Your task to perform on an android device: Go to internet settings Image 0: 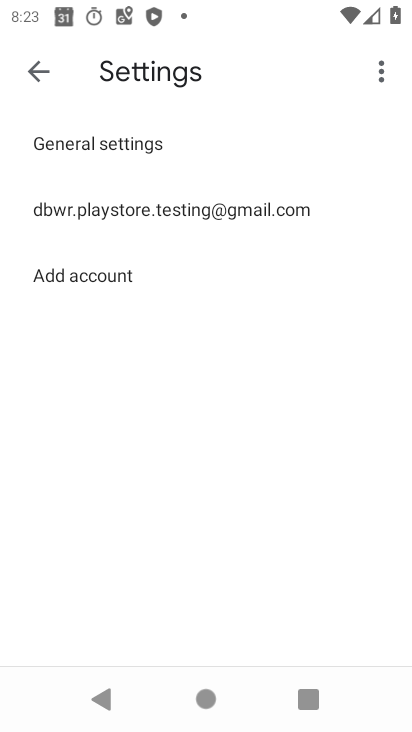
Step 0: press home button
Your task to perform on an android device: Go to internet settings Image 1: 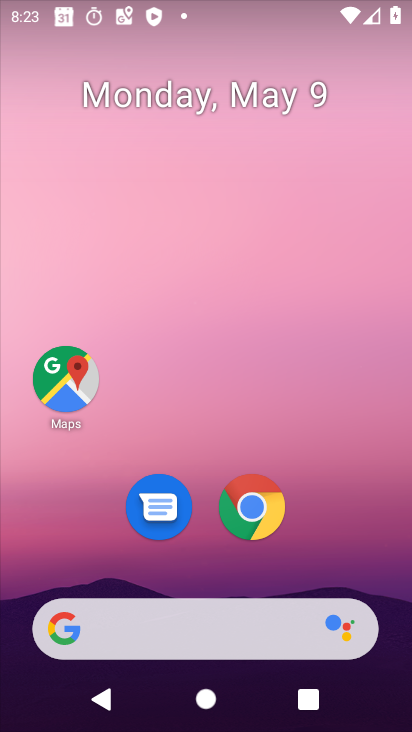
Step 1: drag from (247, 677) to (217, 111)
Your task to perform on an android device: Go to internet settings Image 2: 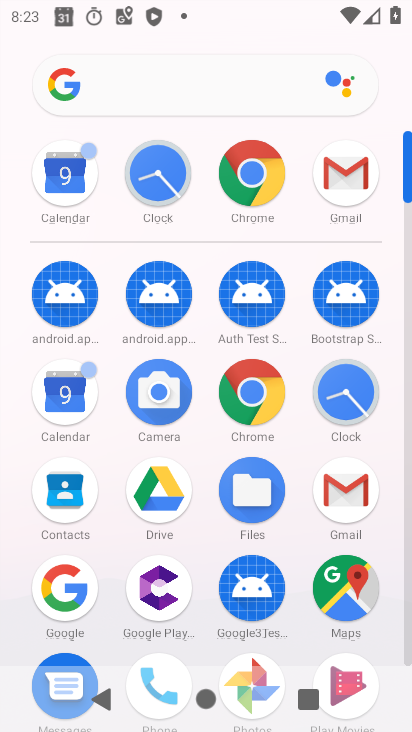
Step 2: drag from (192, 530) to (211, 411)
Your task to perform on an android device: Go to internet settings Image 3: 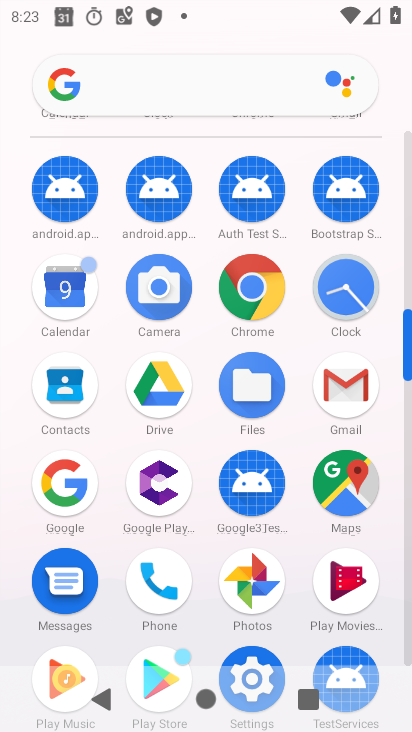
Step 3: drag from (212, 537) to (220, 484)
Your task to perform on an android device: Go to internet settings Image 4: 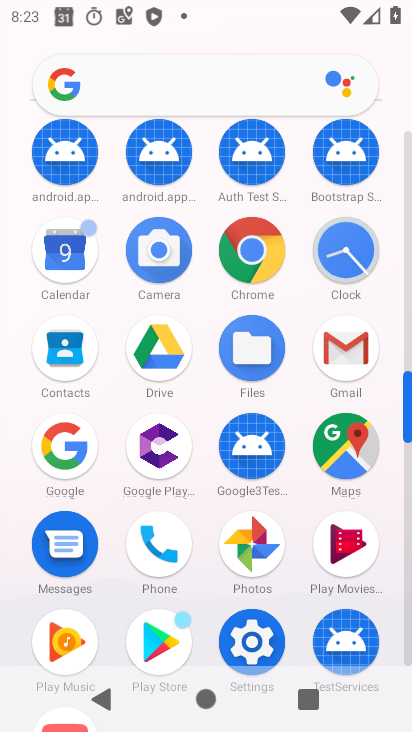
Step 4: click (263, 629)
Your task to perform on an android device: Go to internet settings Image 5: 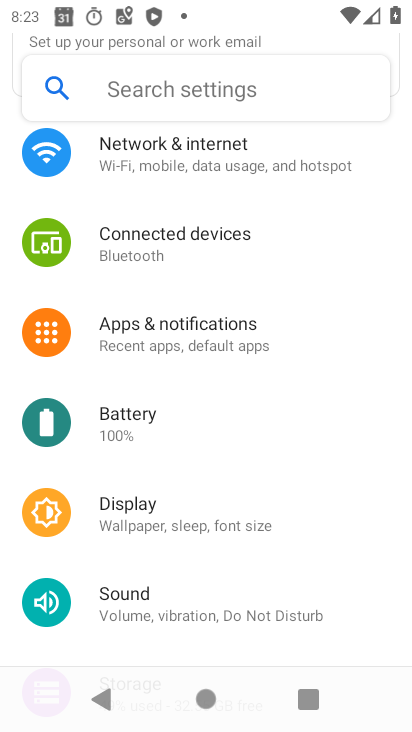
Step 5: click (242, 148)
Your task to perform on an android device: Go to internet settings Image 6: 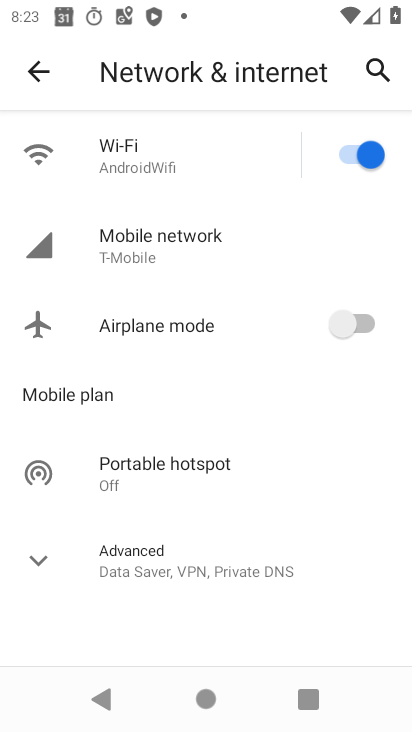
Step 6: task complete